Your task to perform on an android device: uninstall "HBO Max: Stream TV & Movies" Image 0: 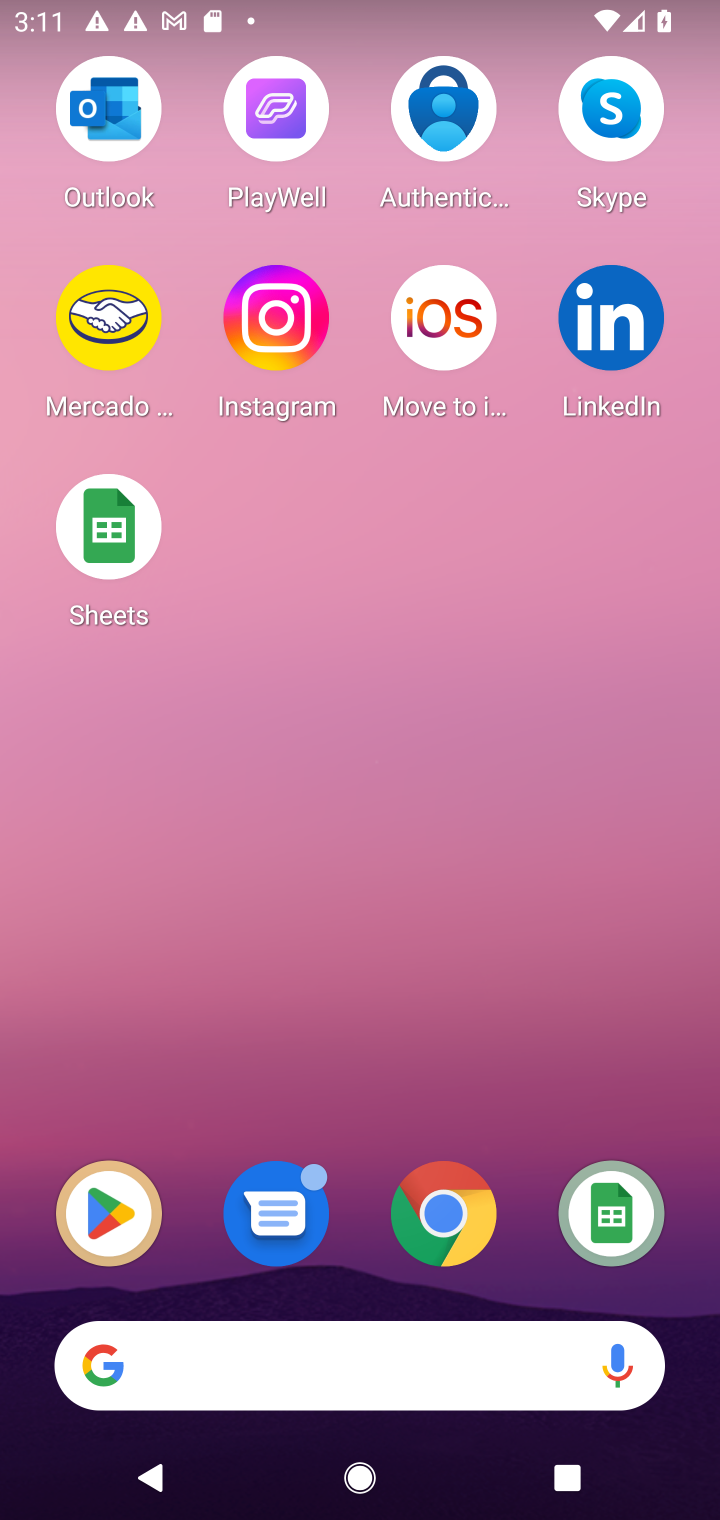
Step 0: drag from (374, 580) to (309, 0)
Your task to perform on an android device: uninstall "HBO Max: Stream TV & Movies" Image 1: 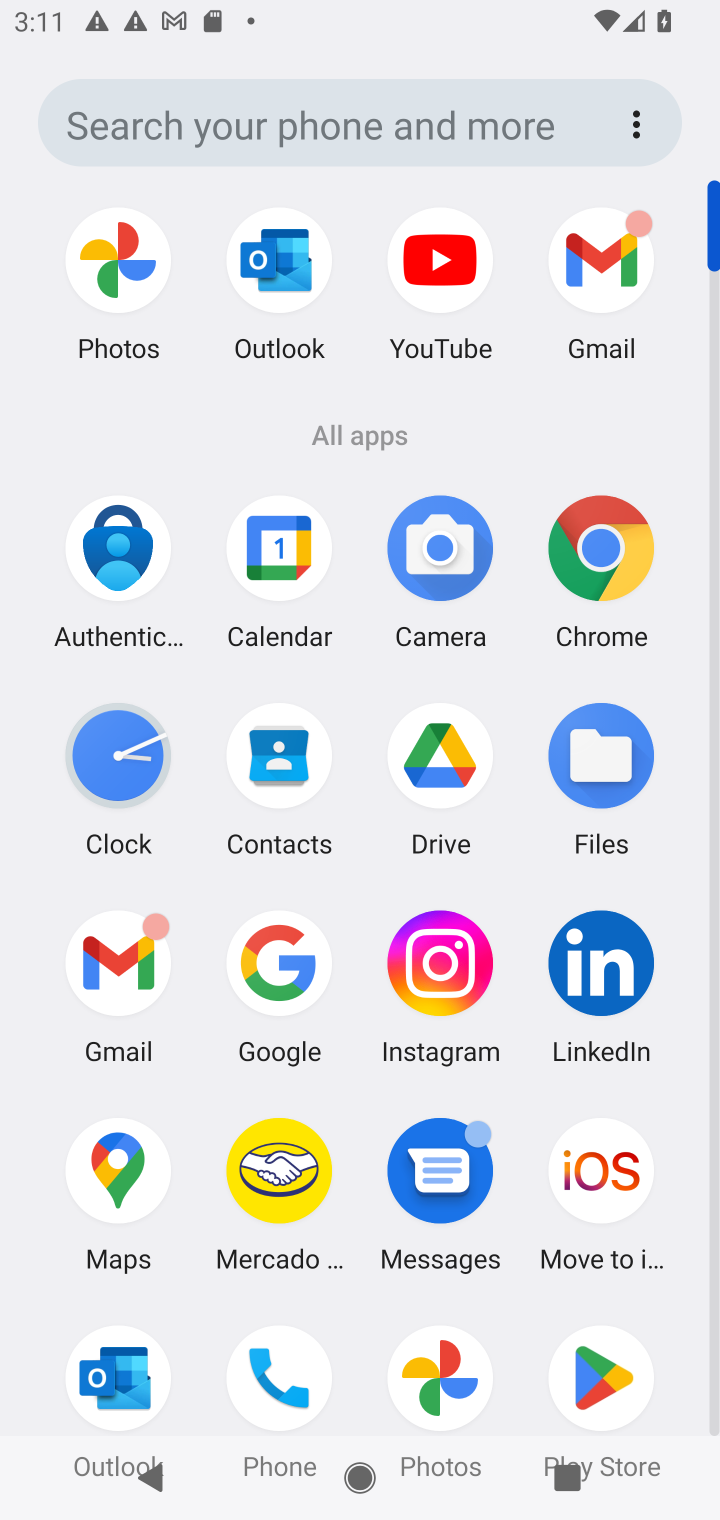
Step 1: click (591, 1381)
Your task to perform on an android device: uninstall "HBO Max: Stream TV & Movies" Image 2: 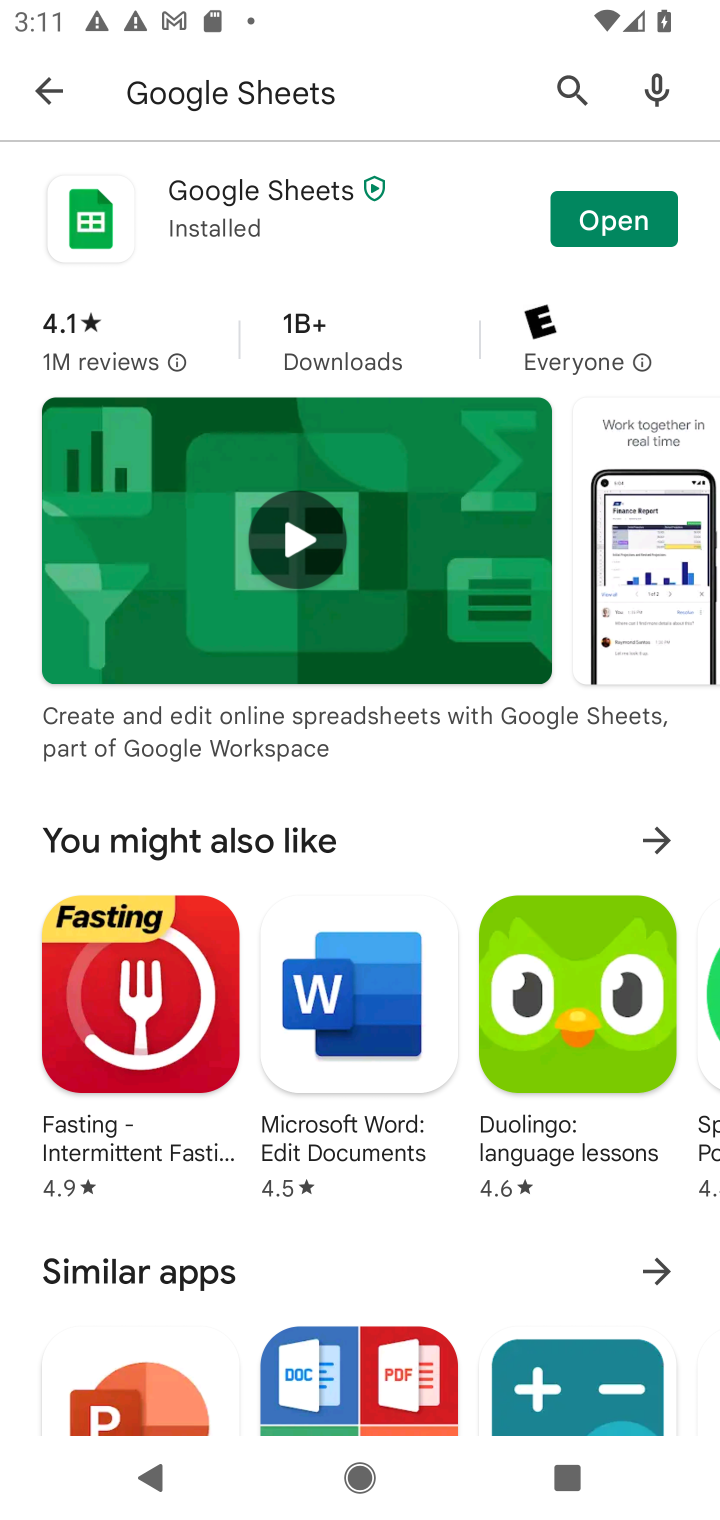
Step 2: click (360, 110)
Your task to perform on an android device: uninstall "HBO Max: Stream TV & Movies" Image 3: 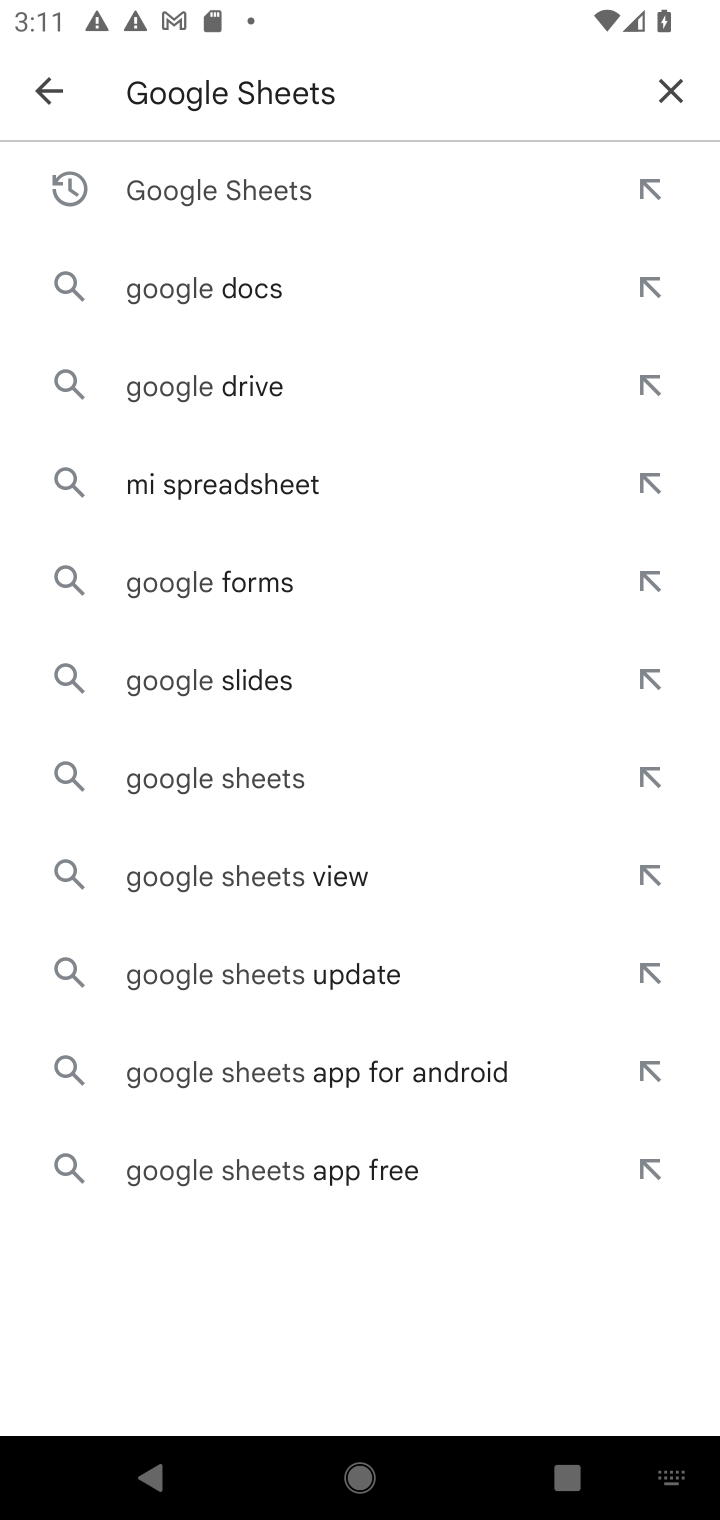
Step 3: click (674, 70)
Your task to perform on an android device: uninstall "HBO Max: Stream TV & Movies" Image 4: 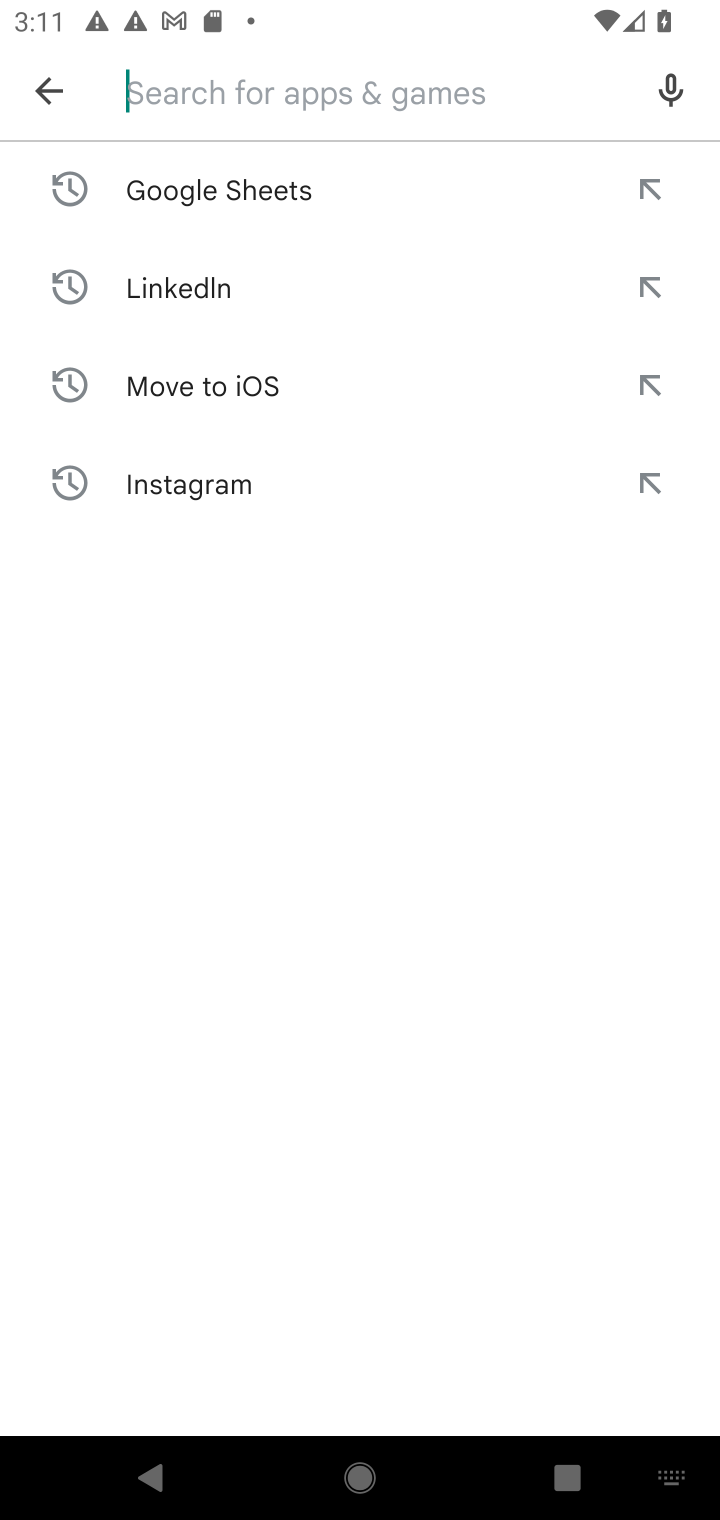
Step 4: type "HBO Max: Steam TV & Movies"
Your task to perform on an android device: uninstall "HBO Max: Stream TV & Movies" Image 5: 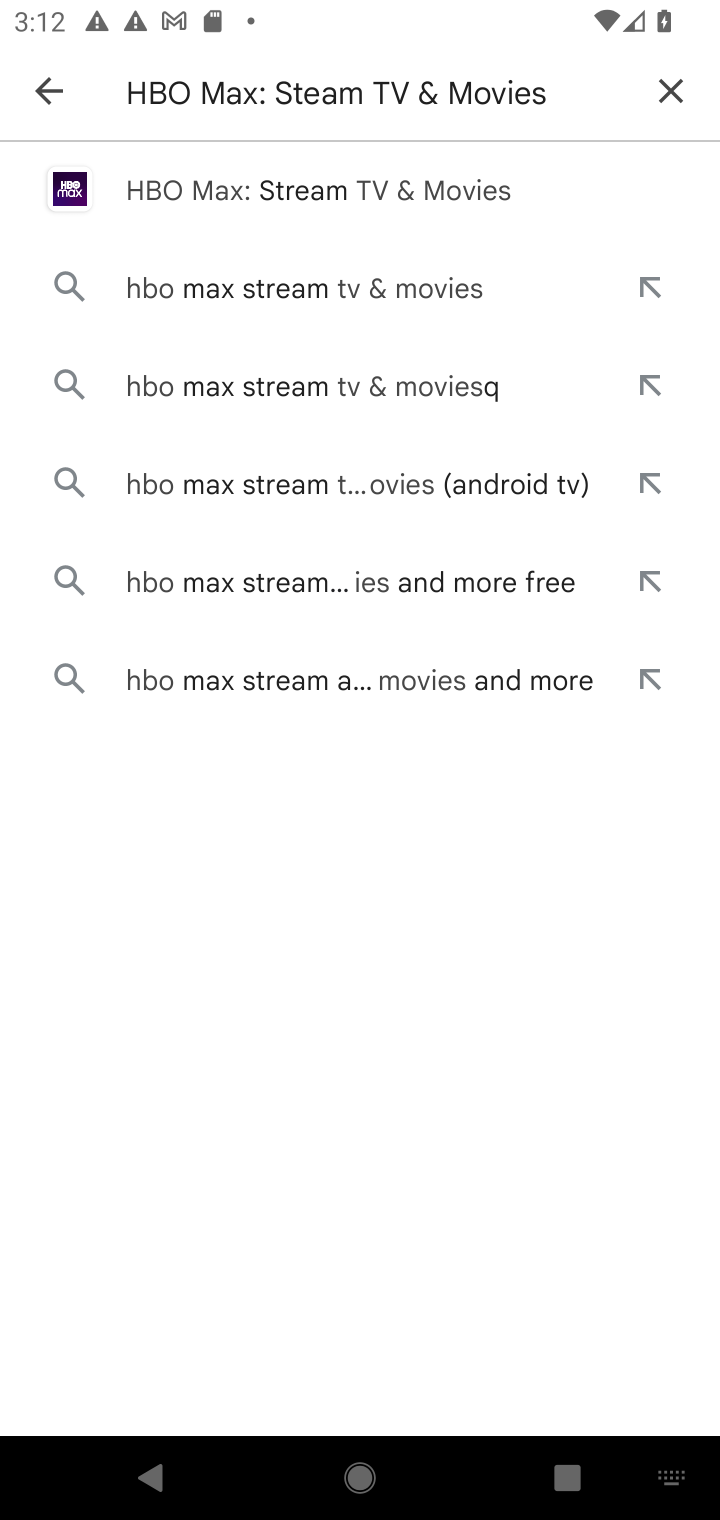
Step 5: press enter
Your task to perform on an android device: uninstall "HBO Max: Stream TV & Movies" Image 6: 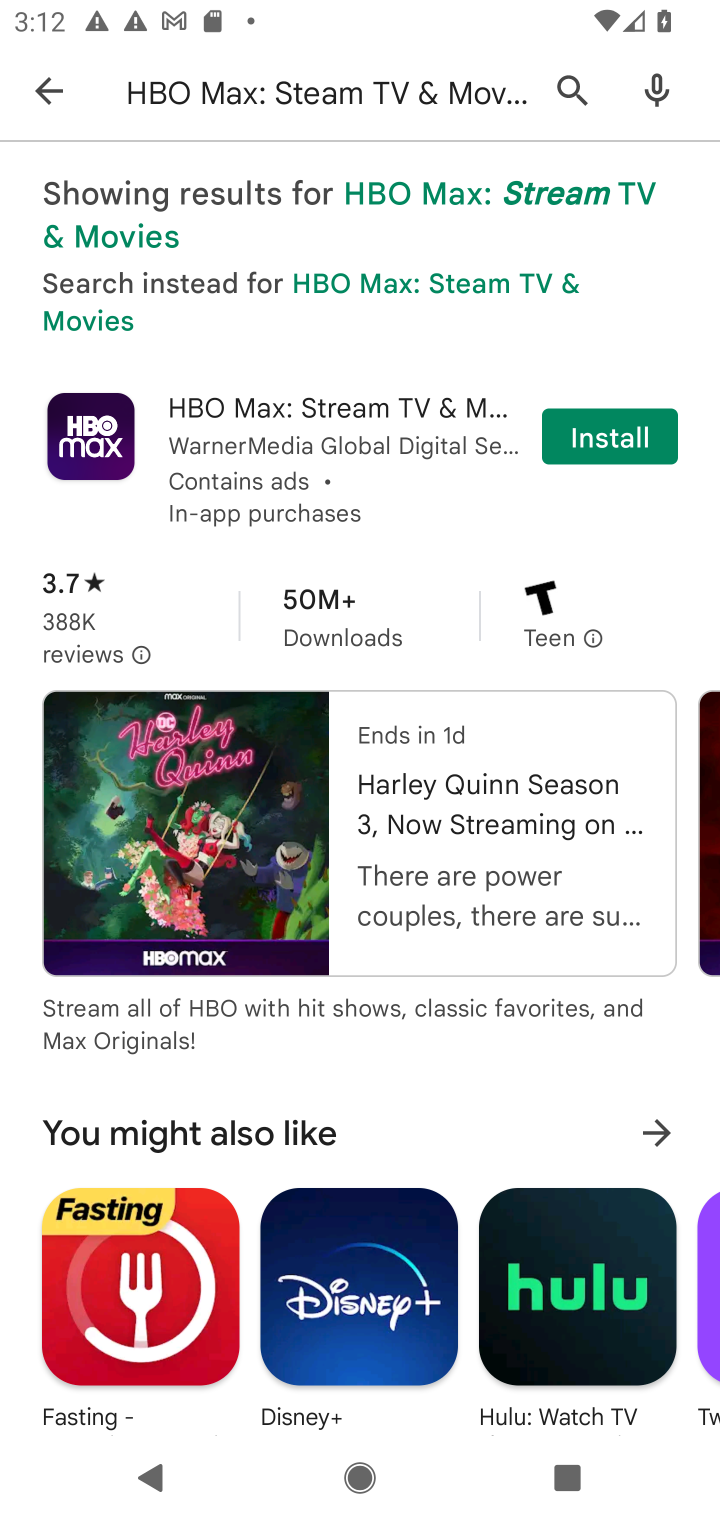
Step 6: task complete